Your task to perform on an android device: open wifi settings Image 0: 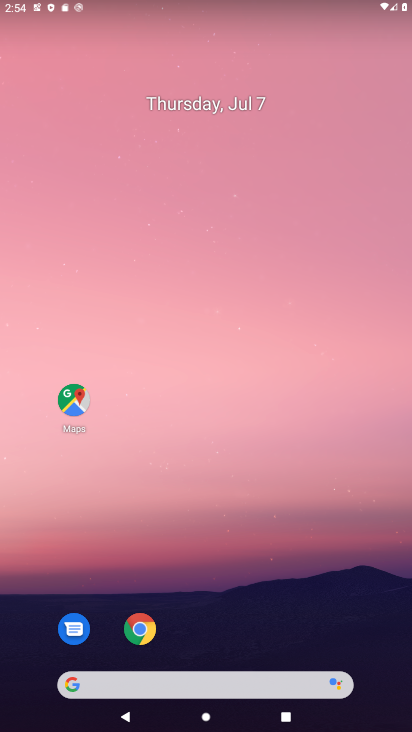
Step 0: drag from (199, 616) to (242, 3)
Your task to perform on an android device: open wifi settings Image 1: 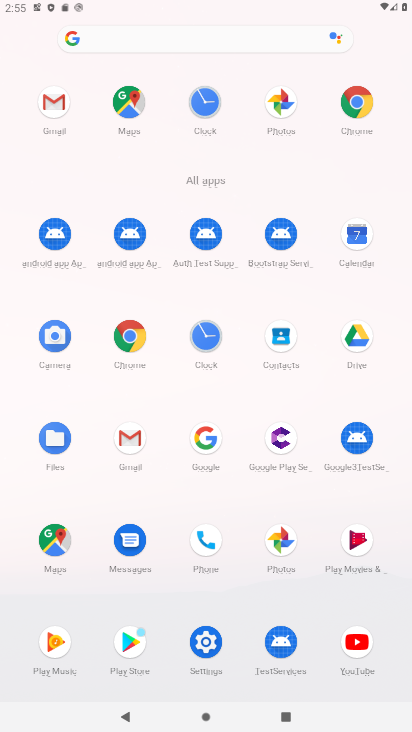
Step 1: drag from (181, 10) to (264, 489)
Your task to perform on an android device: open wifi settings Image 2: 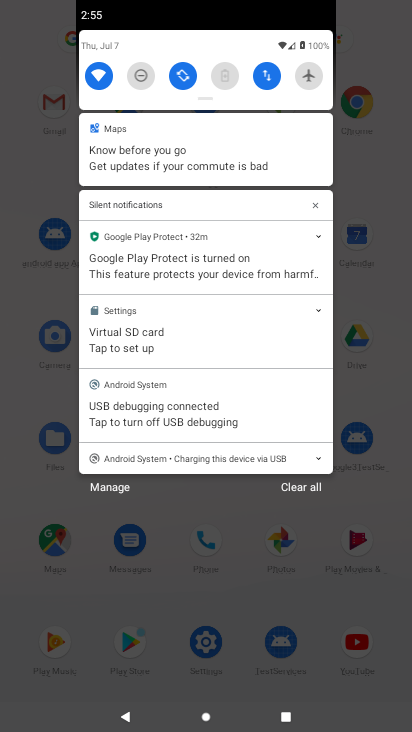
Step 2: click (97, 71)
Your task to perform on an android device: open wifi settings Image 3: 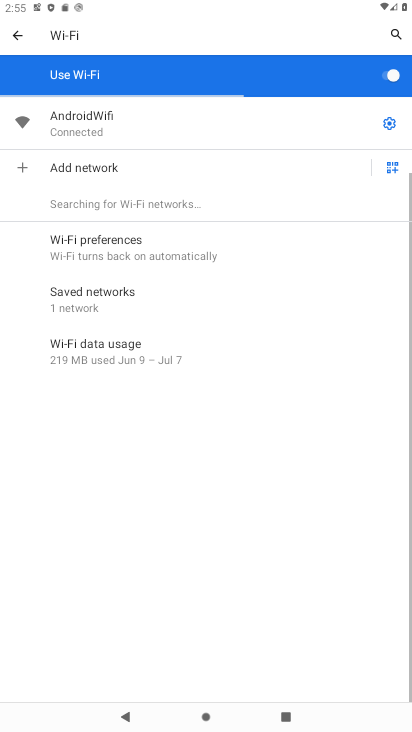
Step 3: task complete